Your task to perform on an android device: delete a single message in the gmail app Image 0: 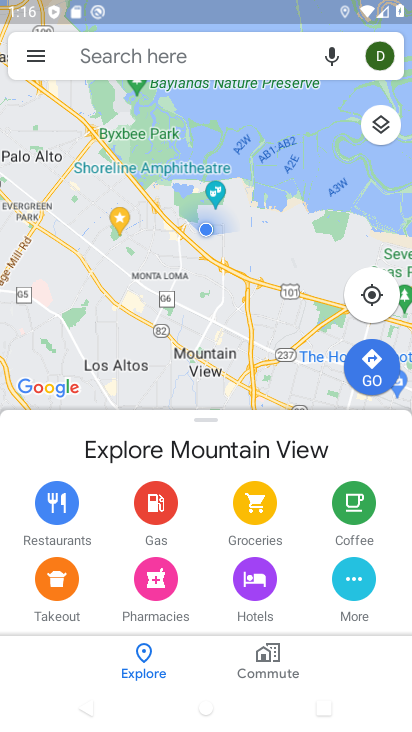
Step 0: press home button
Your task to perform on an android device: delete a single message in the gmail app Image 1: 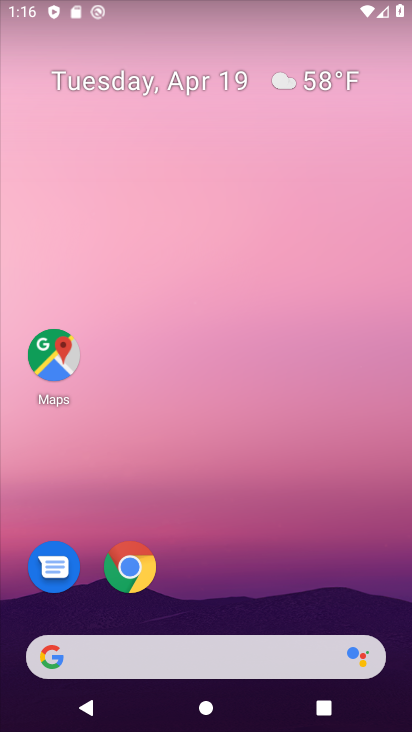
Step 1: drag from (368, 597) to (383, 174)
Your task to perform on an android device: delete a single message in the gmail app Image 2: 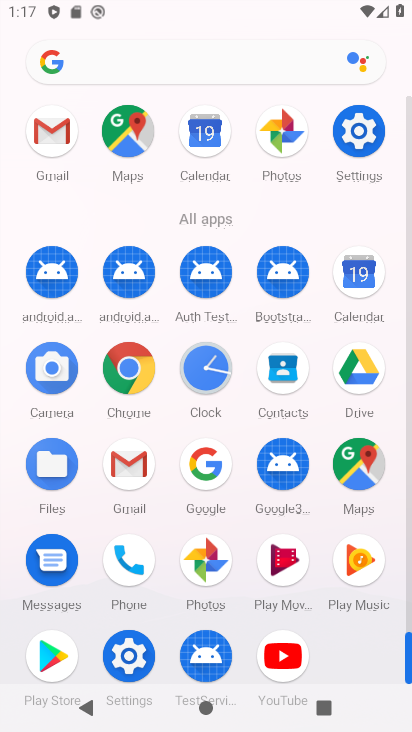
Step 2: click (128, 464)
Your task to perform on an android device: delete a single message in the gmail app Image 3: 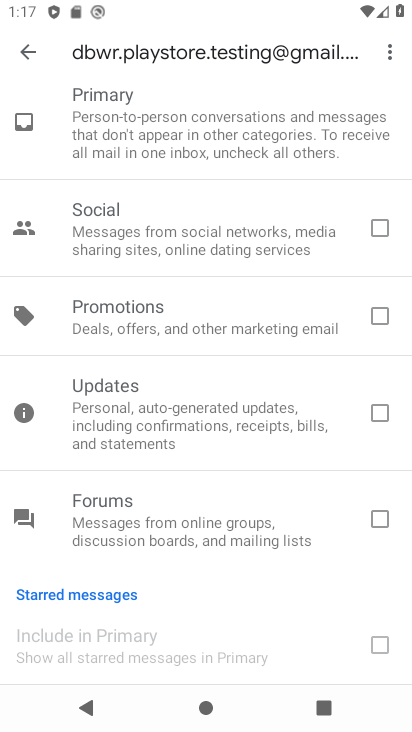
Step 3: press back button
Your task to perform on an android device: delete a single message in the gmail app Image 4: 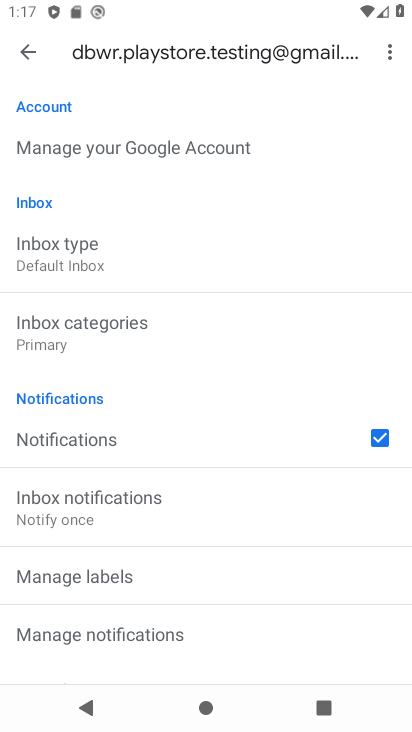
Step 4: press back button
Your task to perform on an android device: delete a single message in the gmail app Image 5: 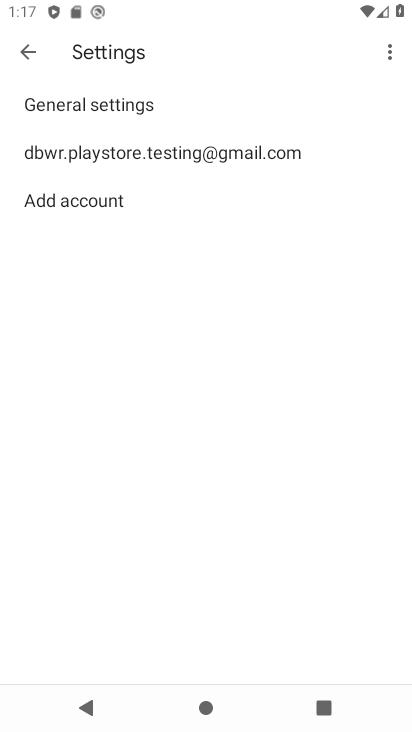
Step 5: press back button
Your task to perform on an android device: delete a single message in the gmail app Image 6: 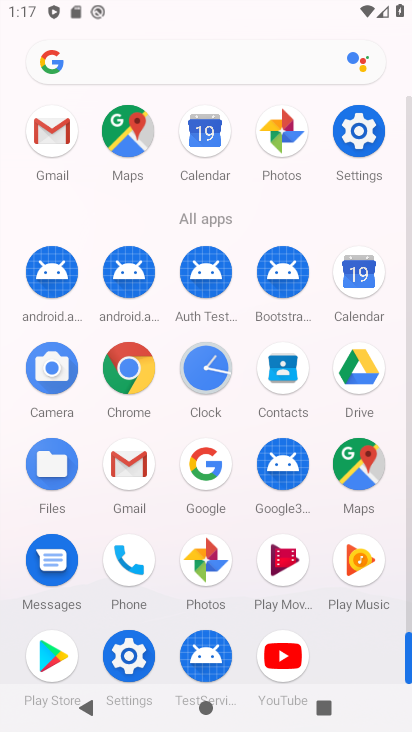
Step 6: click (123, 468)
Your task to perform on an android device: delete a single message in the gmail app Image 7: 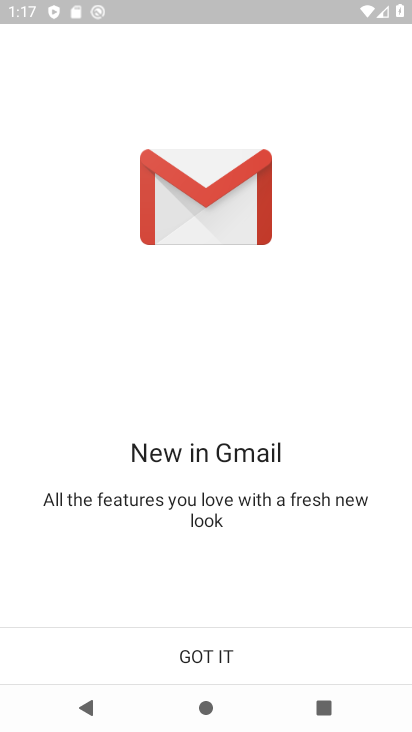
Step 7: click (197, 659)
Your task to perform on an android device: delete a single message in the gmail app Image 8: 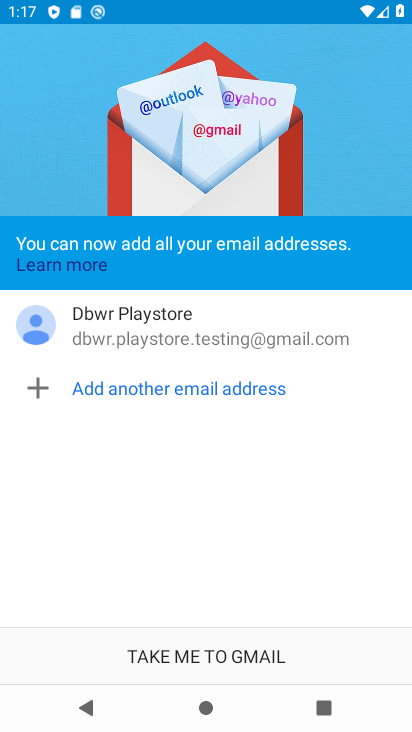
Step 8: click (197, 659)
Your task to perform on an android device: delete a single message in the gmail app Image 9: 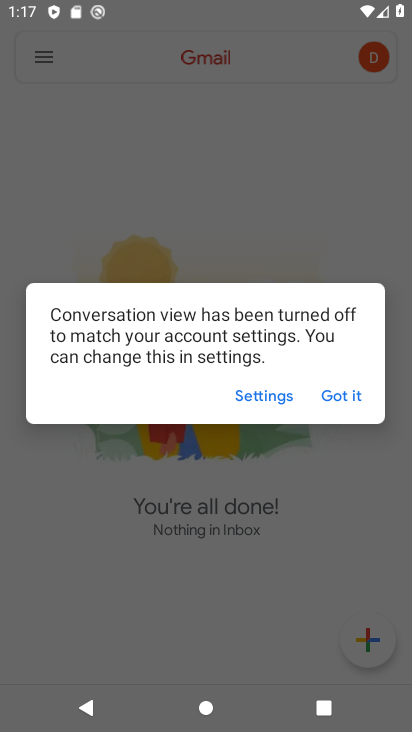
Step 9: click (349, 390)
Your task to perform on an android device: delete a single message in the gmail app Image 10: 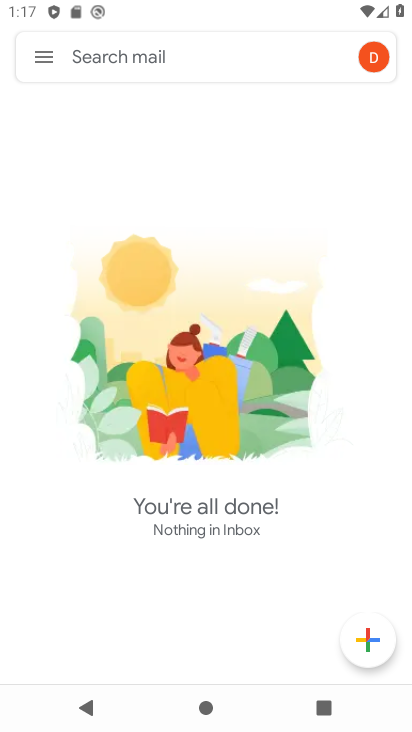
Step 10: click (47, 56)
Your task to perform on an android device: delete a single message in the gmail app Image 11: 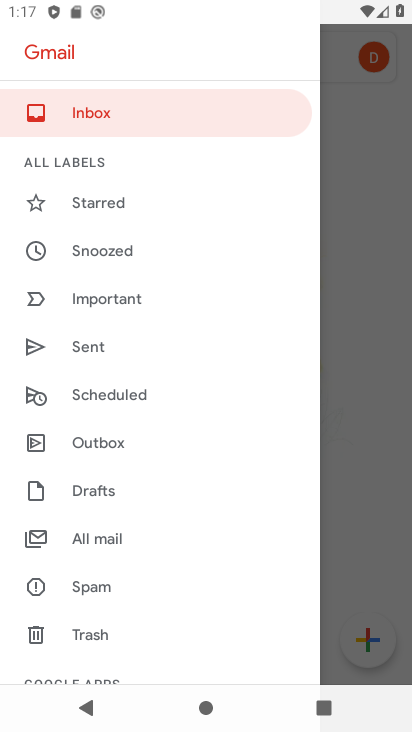
Step 11: click (92, 533)
Your task to perform on an android device: delete a single message in the gmail app Image 12: 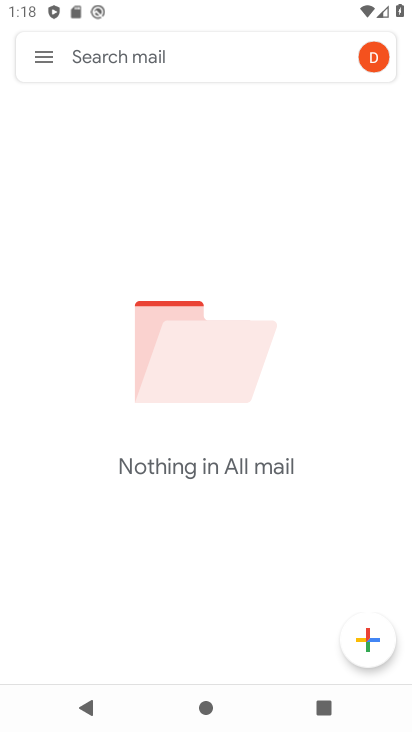
Step 12: task complete